Your task to perform on an android device: toggle sleep mode Image 0: 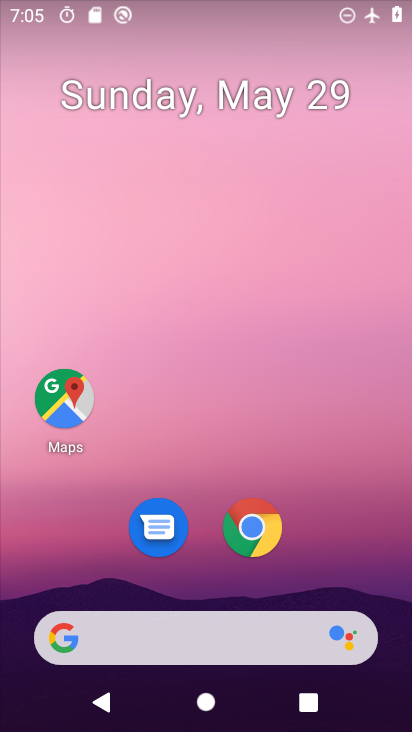
Step 0: drag from (373, 642) to (290, 147)
Your task to perform on an android device: toggle sleep mode Image 1: 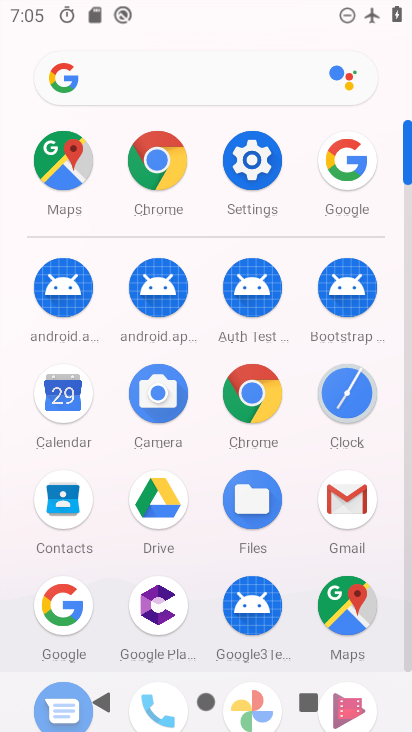
Step 1: click (259, 165)
Your task to perform on an android device: toggle sleep mode Image 2: 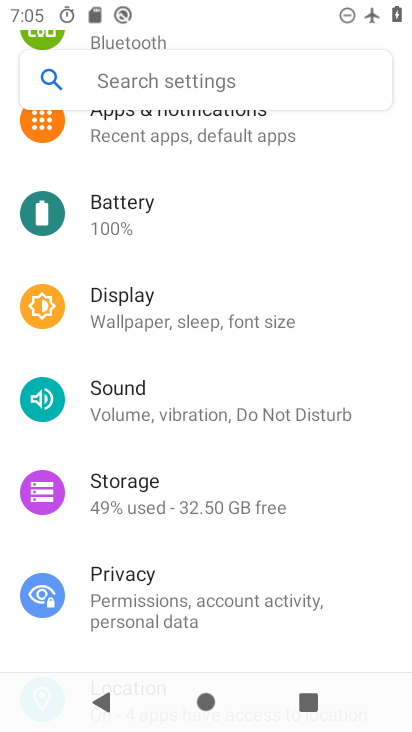
Step 2: task complete